Your task to perform on an android device: What's on my calendar tomorrow? Image 0: 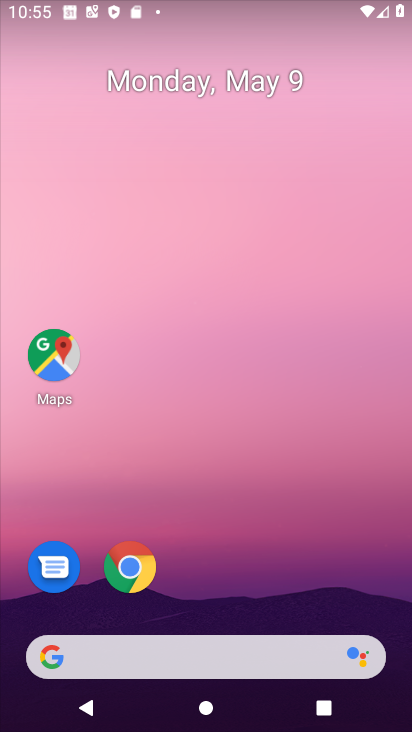
Step 0: drag from (191, 647) to (81, 88)
Your task to perform on an android device: What's on my calendar tomorrow? Image 1: 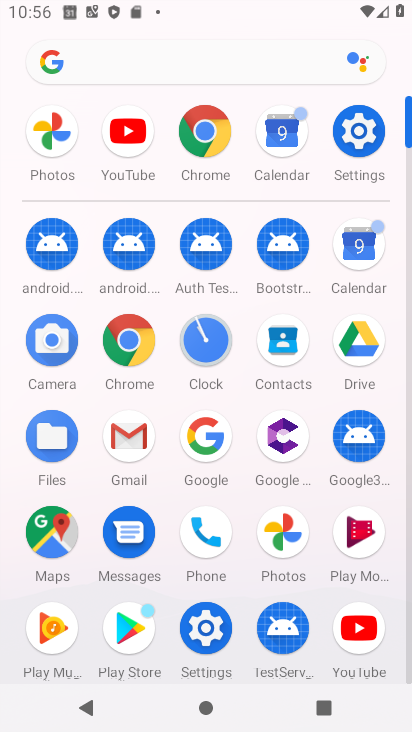
Step 1: click (365, 261)
Your task to perform on an android device: What's on my calendar tomorrow? Image 2: 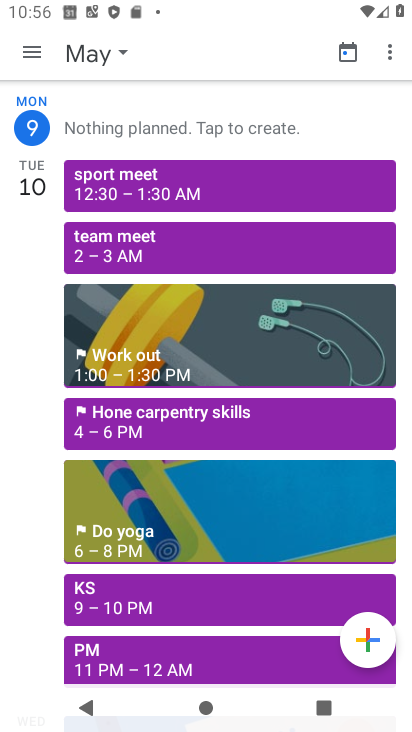
Step 2: task complete